Your task to perform on an android device: open a bookmark in the chrome app Image 0: 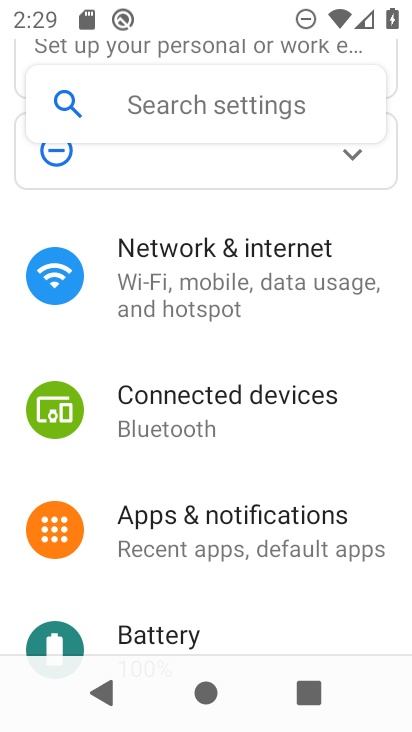
Step 0: press home button
Your task to perform on an android device: open a bookmark in the chrome app Image 1: 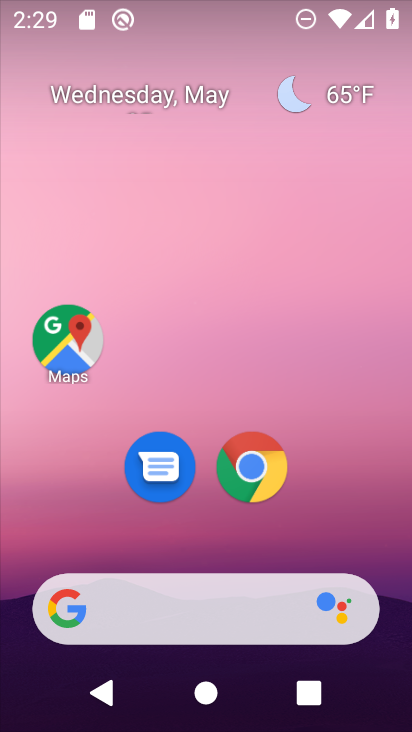
Step 1: click (241, 461)
Your task to perform on an android device: open a bookmark in the chrome app Image 2: 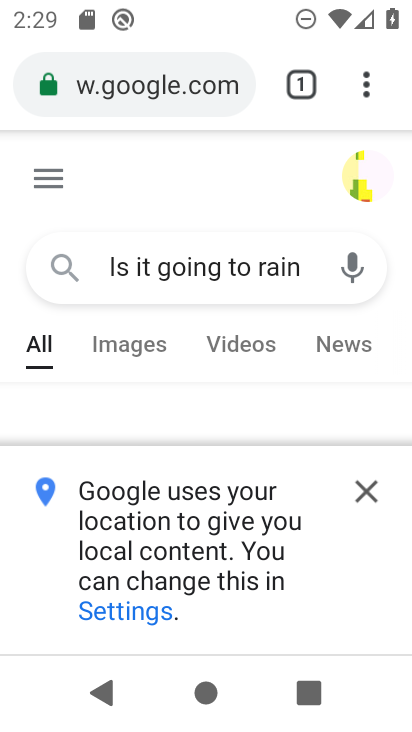
Step 2: click (385, 95)
Your task to perform on an android device: open a bookmark in the chrome app Image 3: 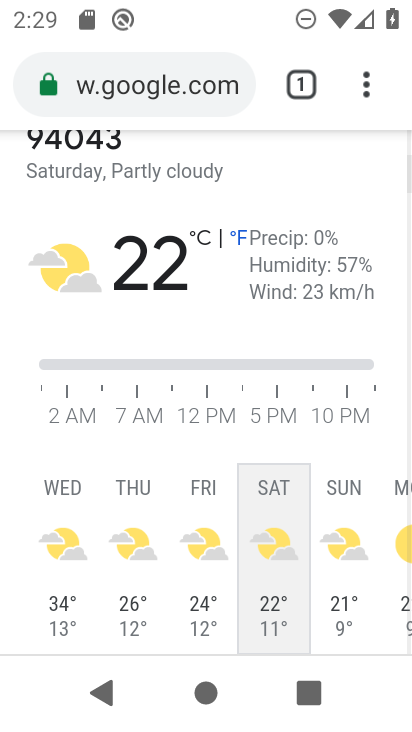
Step 3: click (353, 79)
Your task to perform on an android device: open a bookmark in the chrome app Image 4: 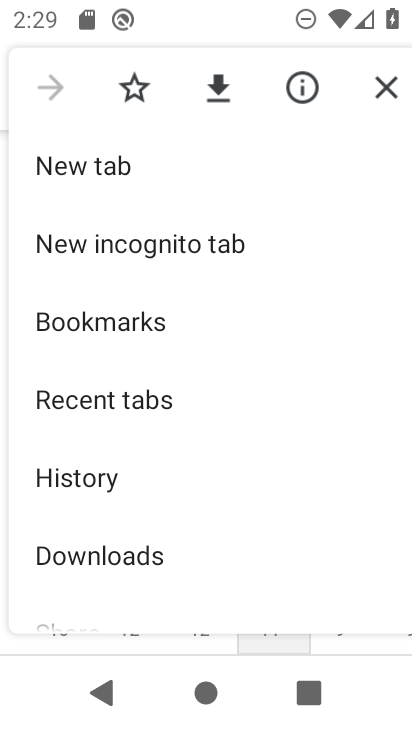
Step 4: click (143, 316)
Your task to perform on an android device: open a bookmark in the chrome app Image 5: 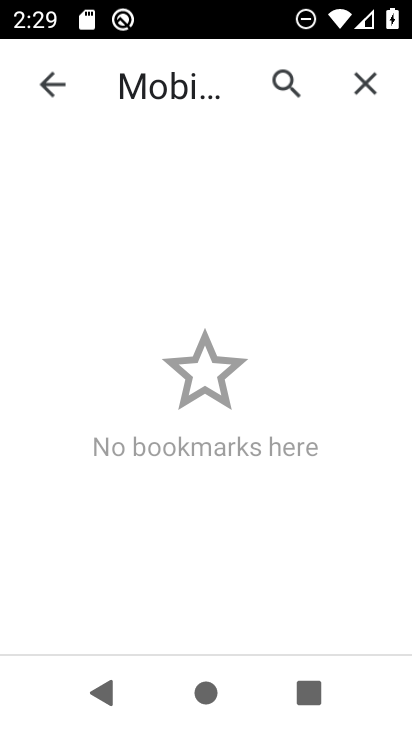
Step 5: task complete